Your task to perform on an android device: change your default location settings in chrome Image 0: 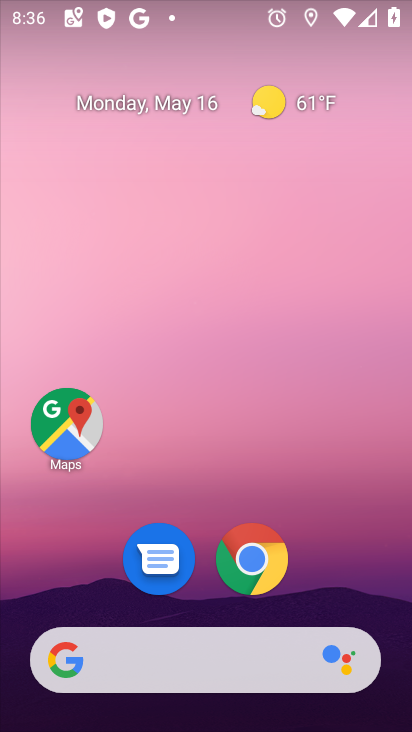
Step 0: drag from (364, 556) to (346, 126)
Your task to perform on an android device: change your default location settings in chrome Image 1: 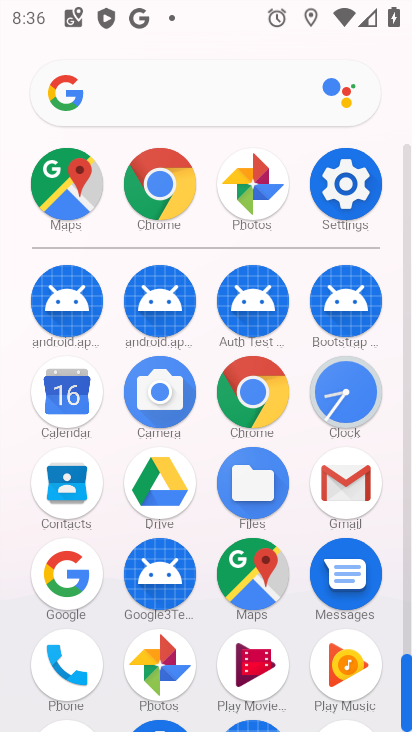
Step 1: click (241, 406)
Your task to perform on an android device: change your default location settings in chrome Image 2: 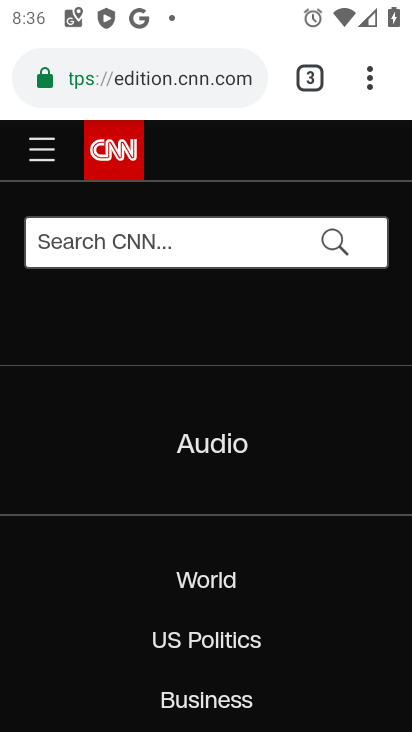
Step 2: press home button
Your task to perform on an android device: change your default location settings in chrome Image 3: 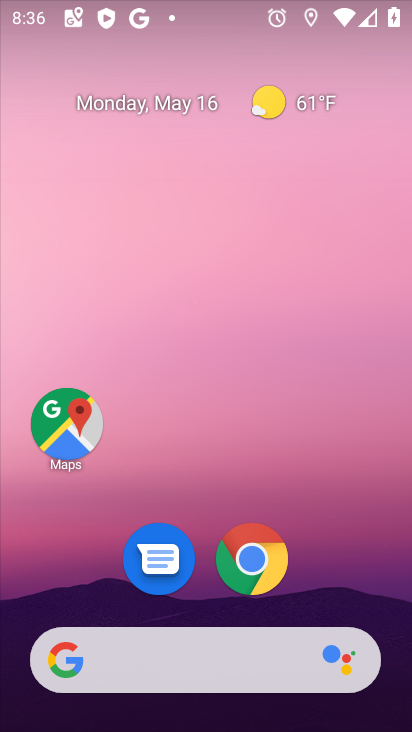
Step 3: drag from (359, 569) to (311, 146)
Your task to perform on an android device: change your default location settings in chrome Image 4: 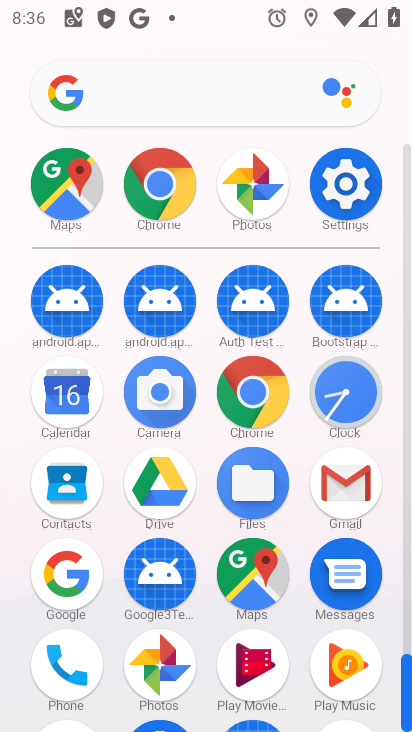
Step 4: click (266, 394)
Your task to perform on an android device: change your default location settings in chrome Image 5: 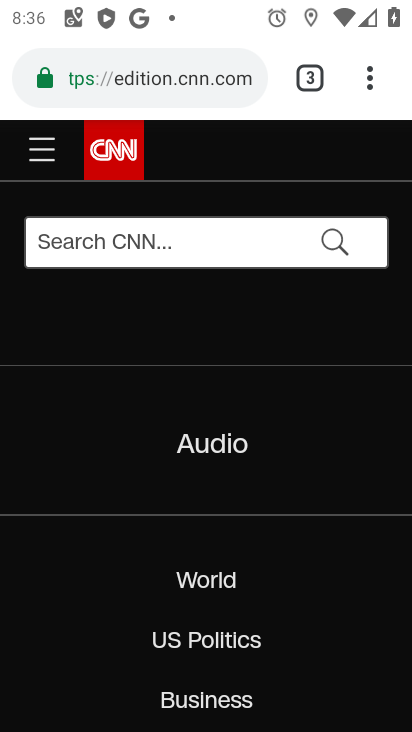
Step 5: drag from (364, 85) to (138, 610)
Your task to perform on an android device: change your default location settings in chrome Image 6: 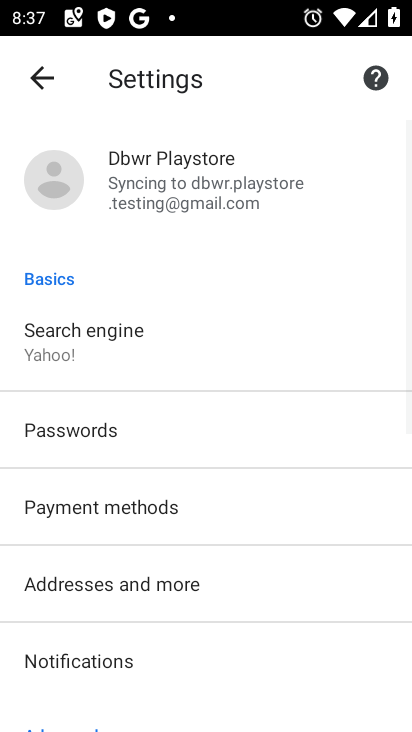
Step 6: drag from (231, 633) to (286, 335)
Your task to perform on an android device: change your default location settings in chrome Image 7: 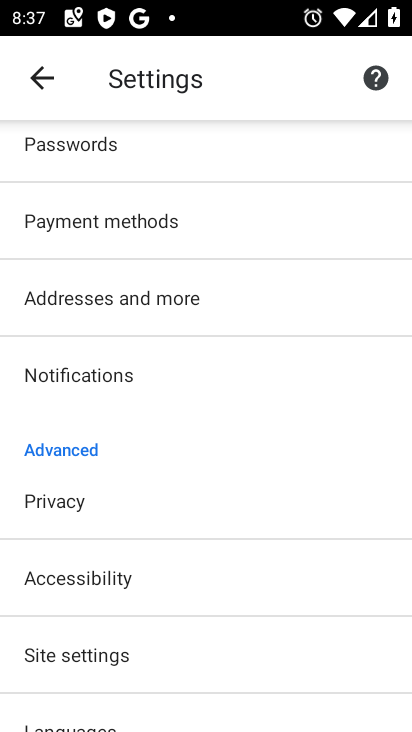
Step 7: click (158, 645)
Your task to perform on an android device: change your default location settings in chrome Image 8: 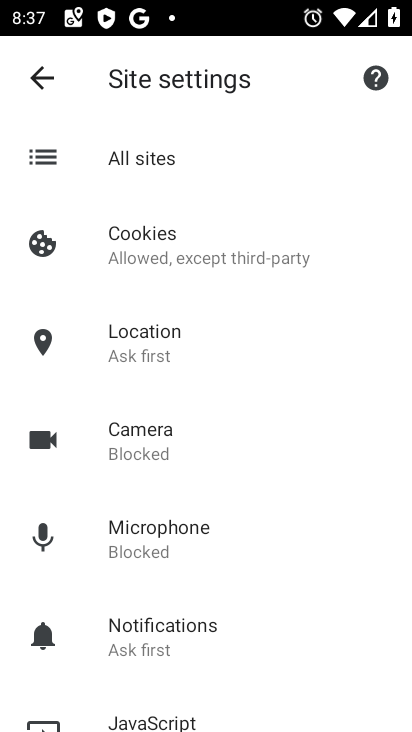
Step 8: click (177, 343)
Your task to perform on an android device: change your default location settings in chrome Image 9: 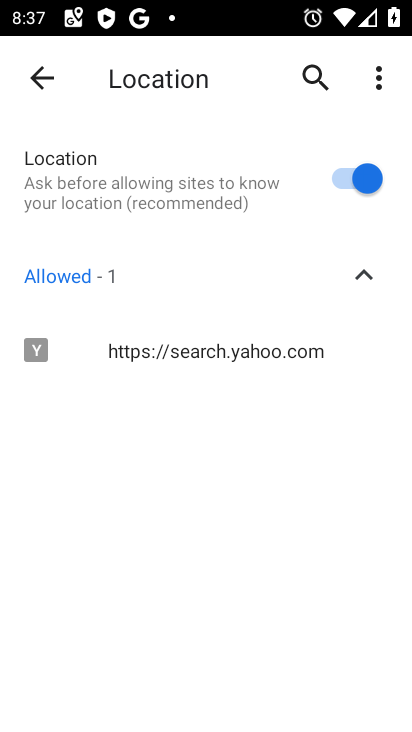
Step 9: click (324, 175)
Your task to perform on an android device: change your default location settings in chrome Image 10: 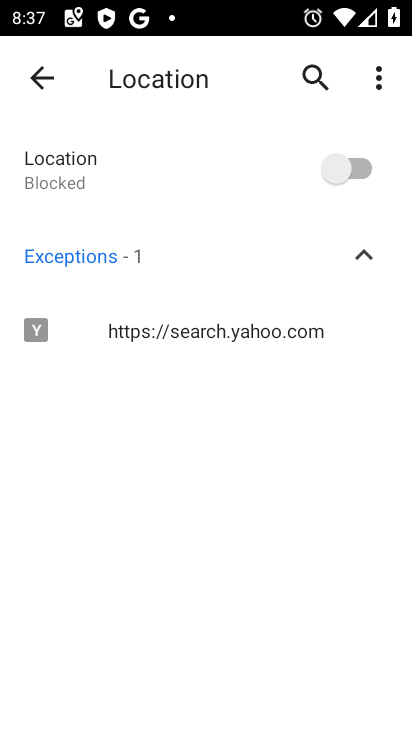
Step 10: task complete